Your task to perform on an android device: When is my next meeting? Image 0: 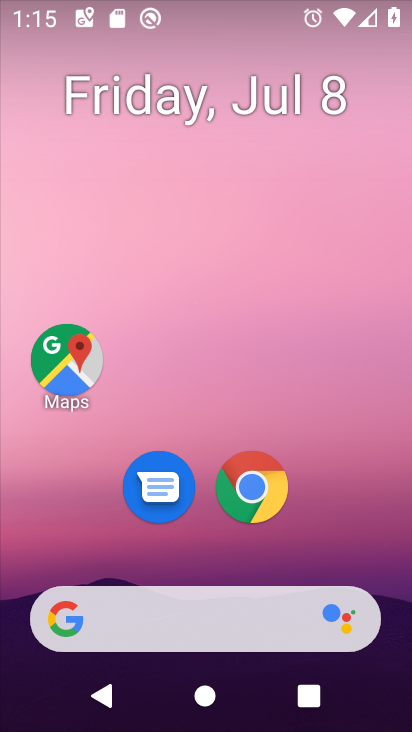
Step 0: drag from (364, 506) to (364, 166)
Your task to perform on an android device: When is my next meeting? Image 1: 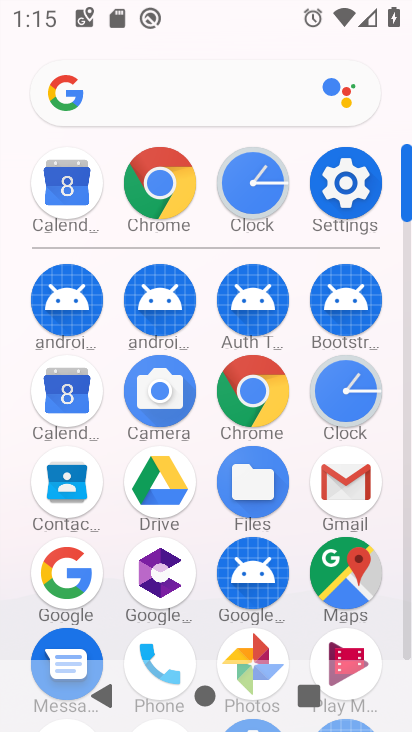
Step 1: click (68, 386)
Your task to perform on an android device: When is my next meeting? Image 2: 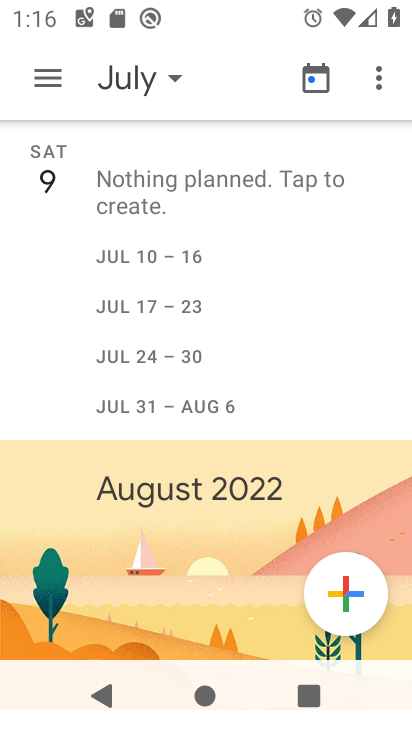
Step 2: task complete